Your task to perform on an android device: Go to Android settings Image 0: 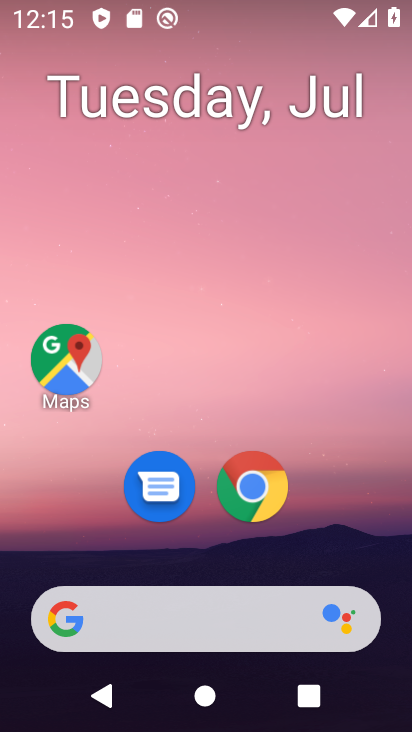
Step 0: drag from (366, 537) to (367, 125)
Your task to perform on an android device: Go to Android settings Image 1: 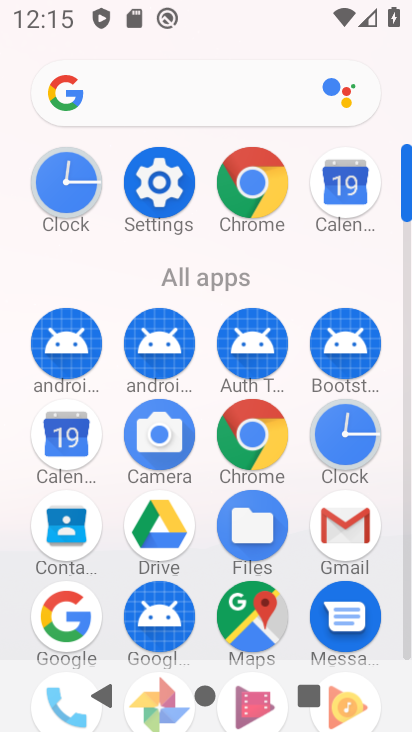
Step 1: drag from (380, 572) to (403, 261)
Your task to perform on an android device: Go to Android settings Image 2: 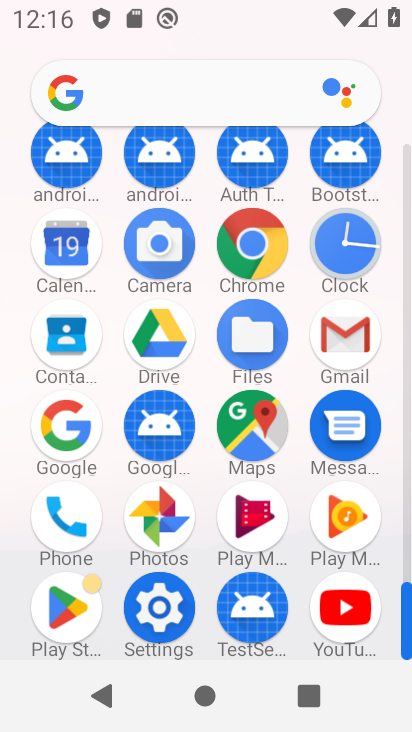
Step 2: click (160, 609)
Your task to perform on an android device: Go to Android settings Image 3: 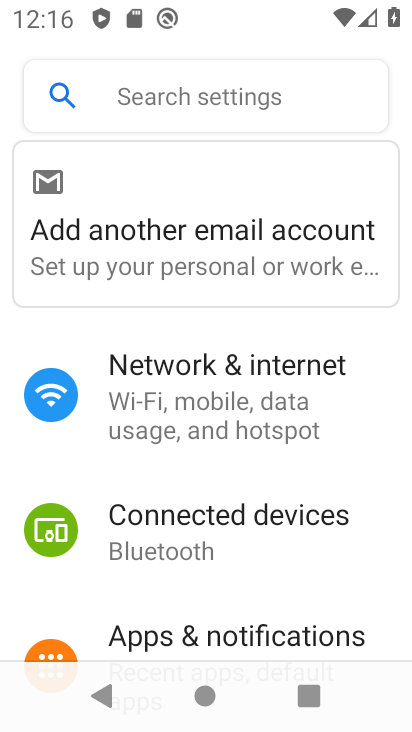
Step 3: drag from (355, 575) to (372, 455)
Your task to perform on an android device: Go to Android settings Image 4: 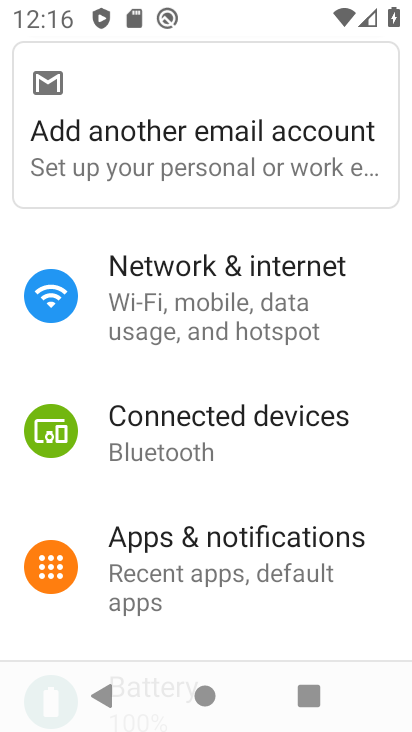
Step 4: drag from (348, 599) to (355, 453)
Your task to perform on an android device: Go to Android settings Image 5: 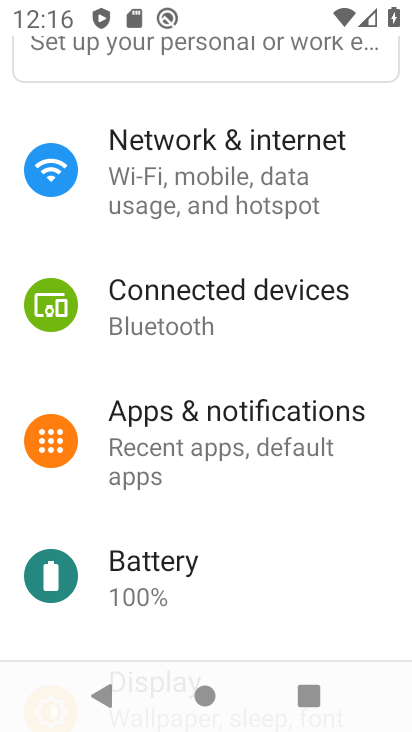
Step 5: drag from (340, 557) to (350, 436)
Your task to perform on an android device: Go to Android settings Image 6: 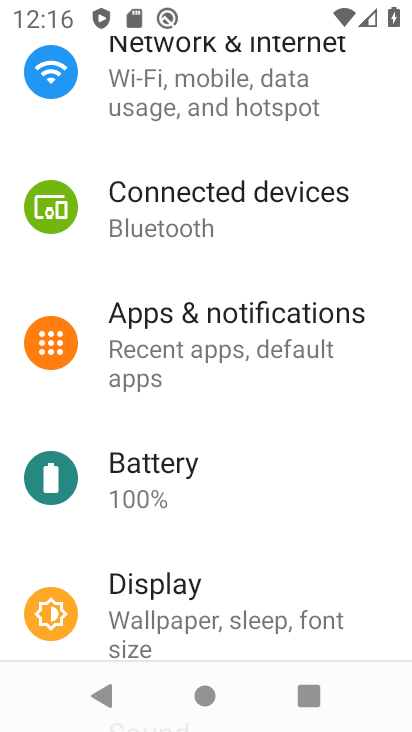
Step 6: drag from (374, 626) to (371, 451)
Your task to perform on an android device: Go to Android settings Image 7: 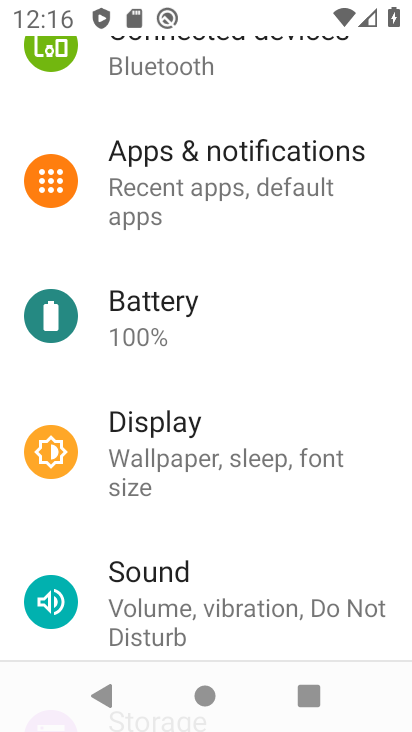
Step 7: drag from (338, 530) to (334, 414)
Your task to perform on an android device: Go to Android settings Image 8: 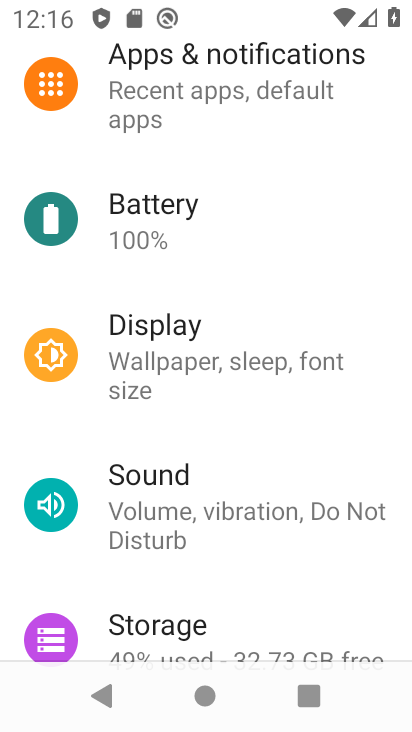
Step 8: drag from (332, 543) to (338, 431)
Your task to perform on an android device: Go to Android settings Image 9: 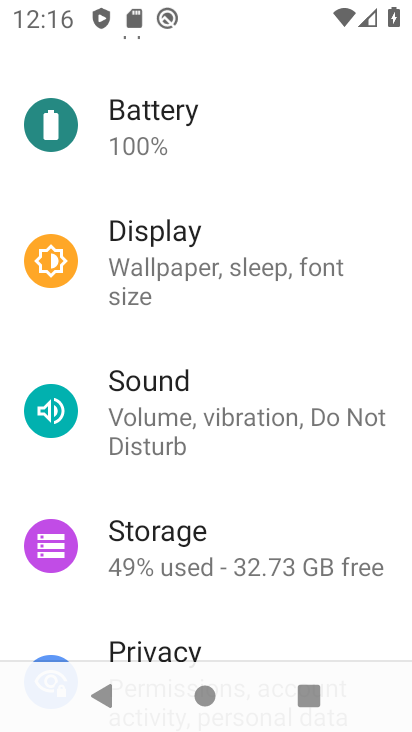
Step 9: drag from (335, 601) to (346, 466)
Your task to perform on an android device: Go to Android settings Image 10: 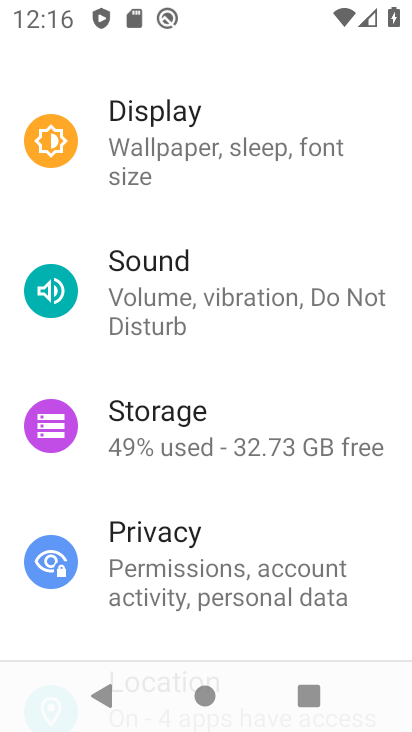
Step 10: drag from (367, 603) to (369, 475)
Your task to perform on an android device: Go to Android settings Image 11: 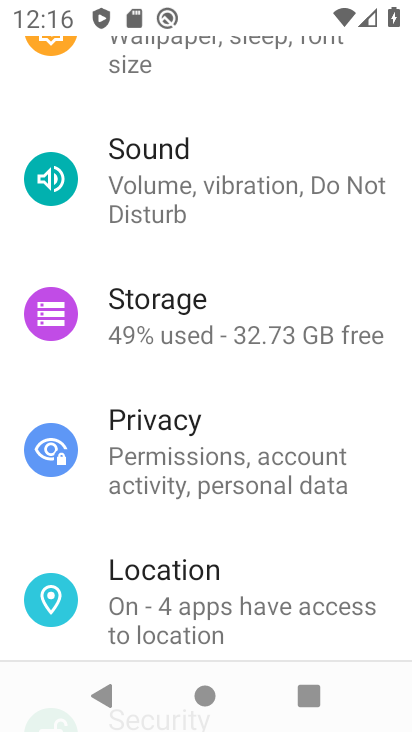
Step 11: drag from (357, 549) to (360, 421)
Your task to perform on an android device: Go to Android settings Image 12: 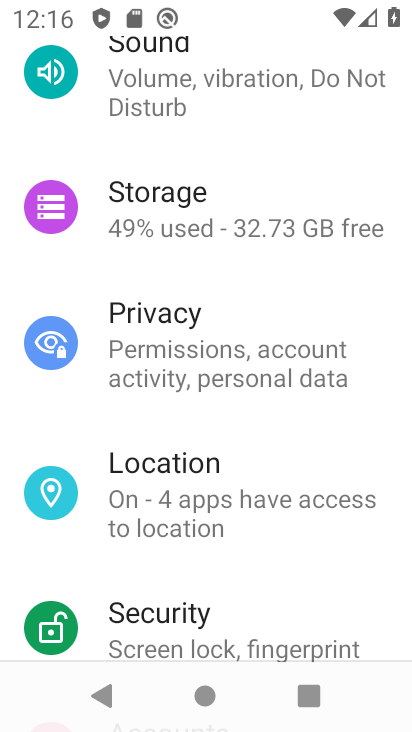
Step 12: drag from (365, 566) to (368, 427)
Your task to perform on an android device: Go to Android settings Image 13: 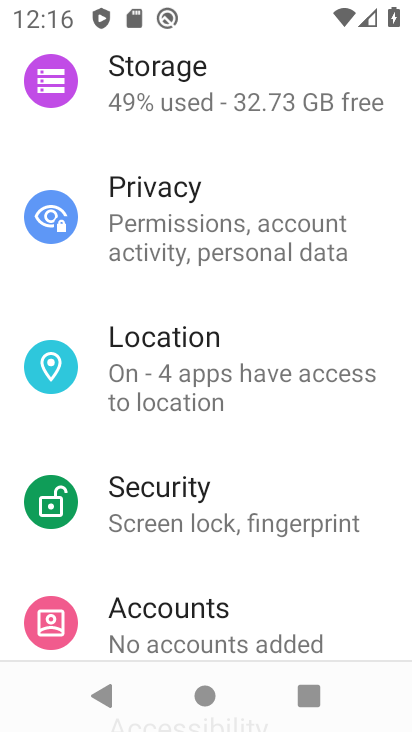
Step 13: drag from (379, 610) to (380, 483)
Your task to perform on an android device: Go to Android settings Image 14: 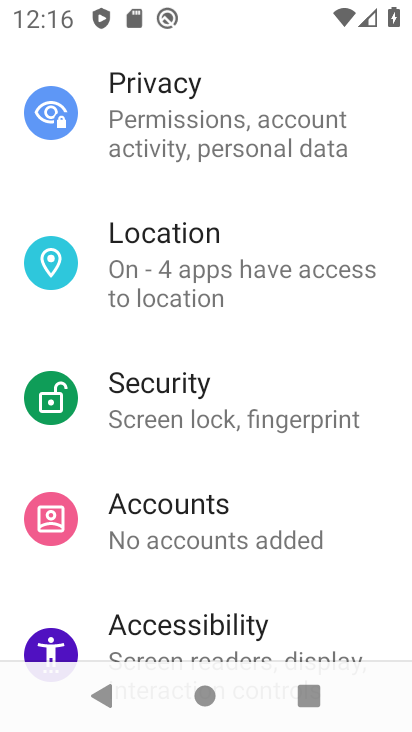
Step 14: drag from (350, 619) to (355, 477)
Your task to perform on an android device: Go to Android settings Image 15: 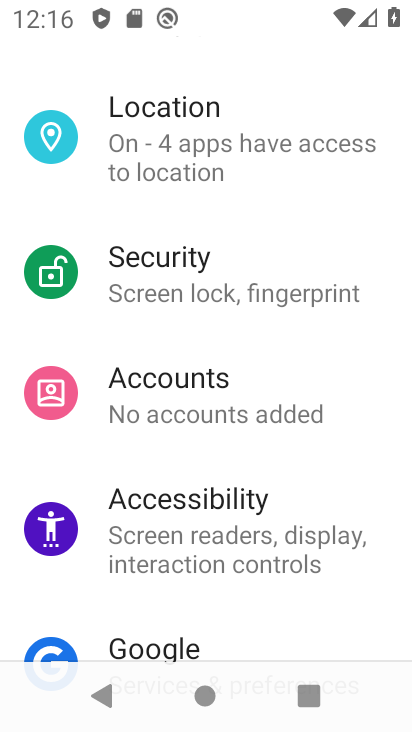
Step 15: drag from (346, 589) to (354, 431)
Your task to perform on an android device: Go to Android settings Image 16: 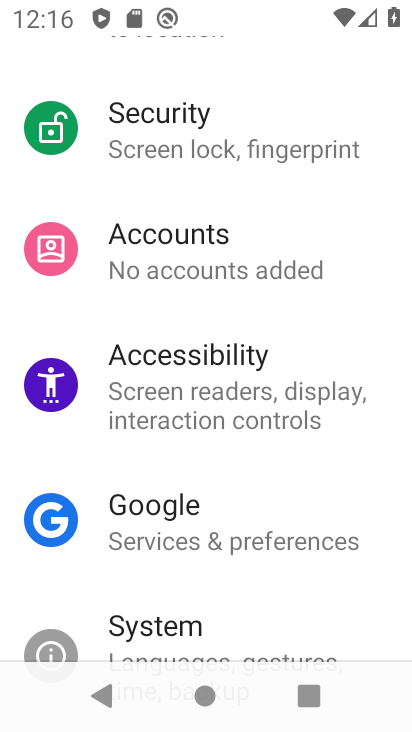
Step 16: drag from (345, 595) to (357, 431)
Your task to perform on an android device: Go to Android settings Image 17: 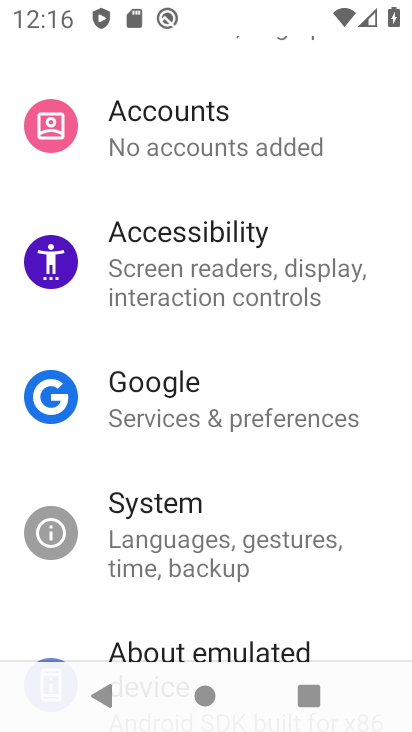
Step 17: click (325, 517)
Your task to perform on an android device: Go to Android settings Image 18: 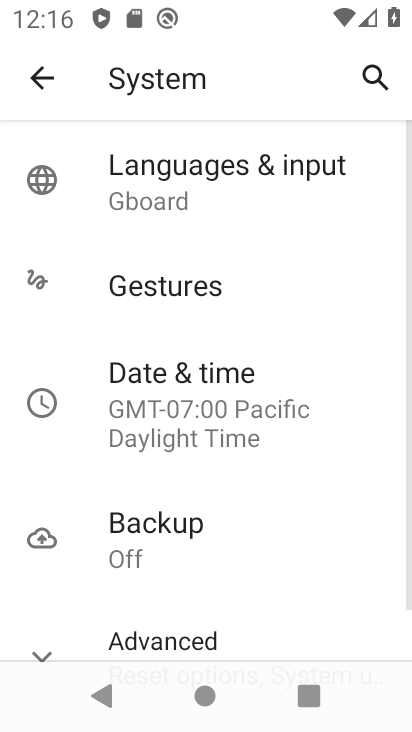
Step 18: drag from (293, 570) to (310, 387)
Your task to perform on an android device: Go to Android settings Image 19: 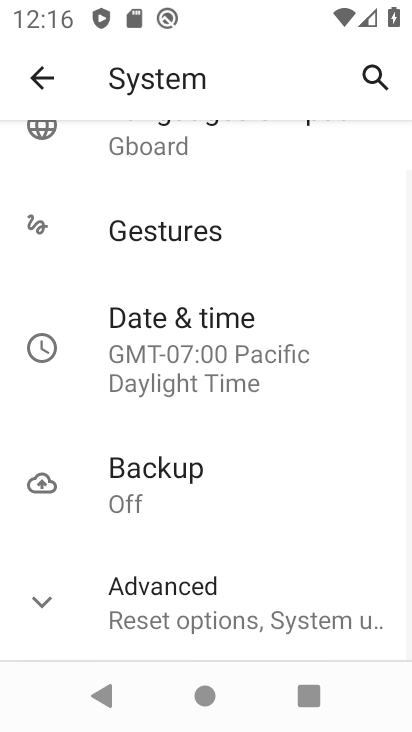
Step 19: click (266, 607)
Your task to perform on an android device: Go to Android settings Image 20: 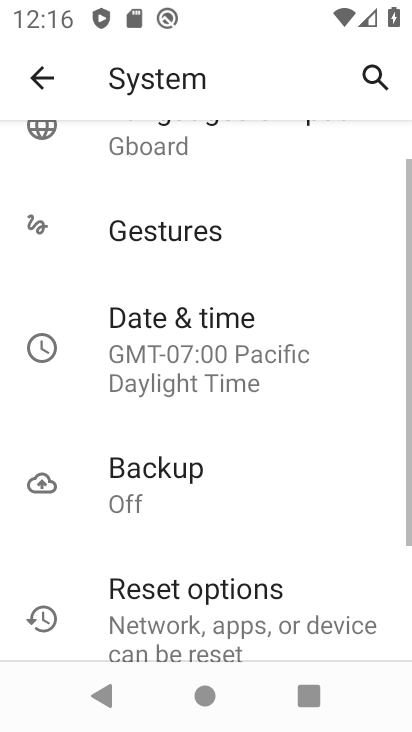
Step 20: task complete